Your task to perform on an android device: Open ESPN.com Image 0: 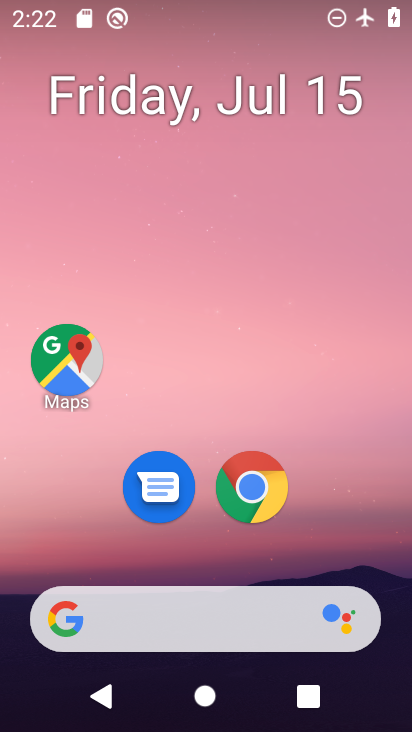
Step 0: drag from (233, 620) to (223, 269)
Your task to perform on an android device: Open ESPN.com Image 1: 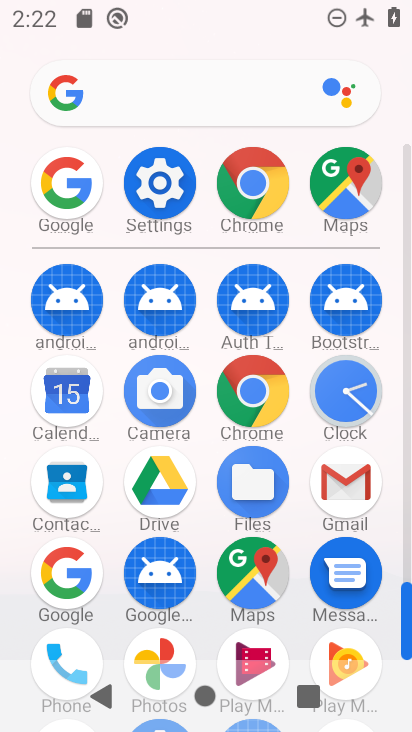
Step 1: click (252, 192)
Your task to perform on an android device: Open ESPN.com Image 2: 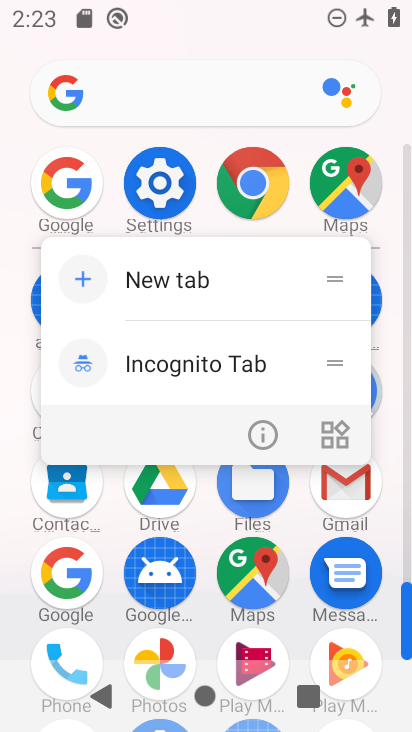
Step 2: click (247, 189)
Your task to perform on an android device: Open ESPN.com Image 3: 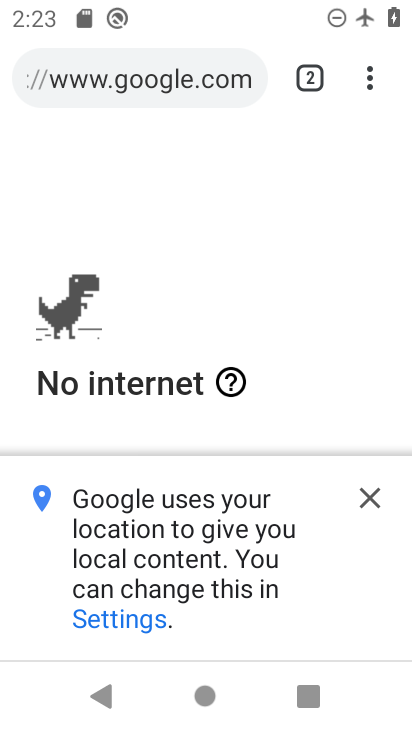
Step 3: click (208, 67)
Your task to perform on an android device: Open ESPN.com Image 4: 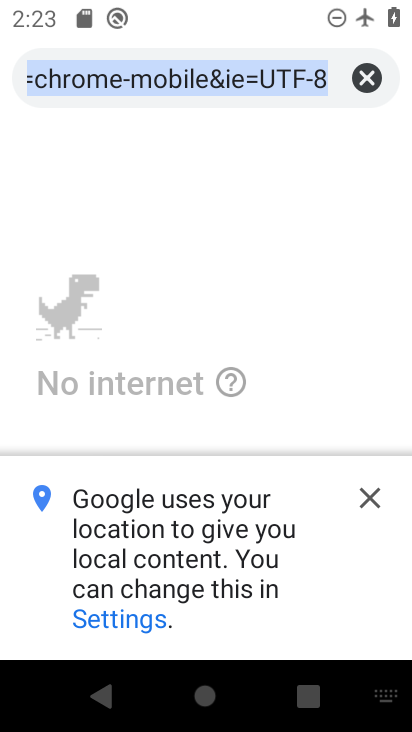
Step 4: type "espn"
Your task to perform on an android device: Open ESPN.com Image 5: 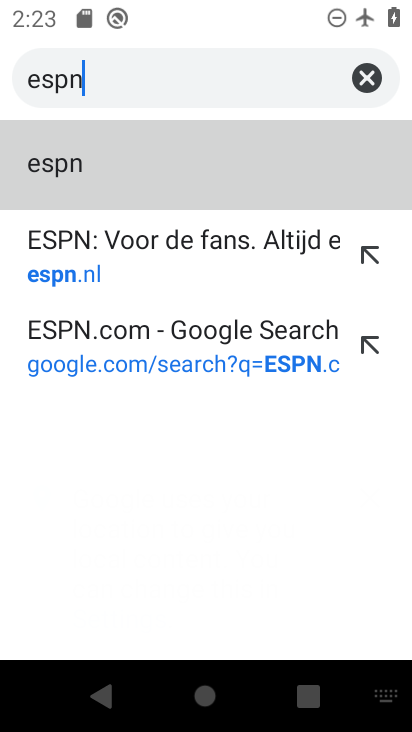
Step 5: click (186, 261)
Your task to perform on an android device: Open ESPN.com Image 6: 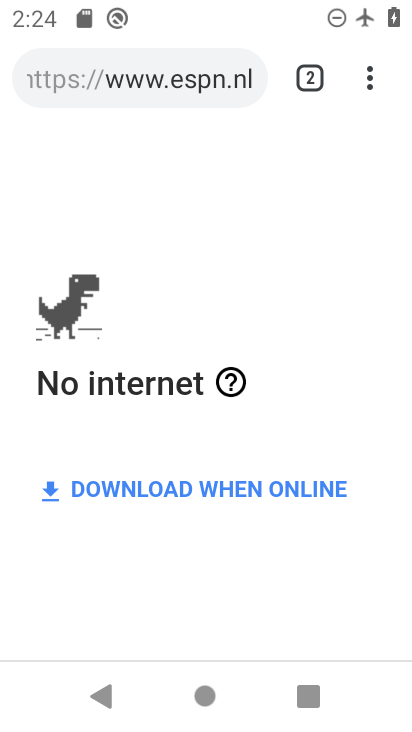
Step 6: task complete